Your task to perform on an android device: open a bookmark in the chrome app Image 0: 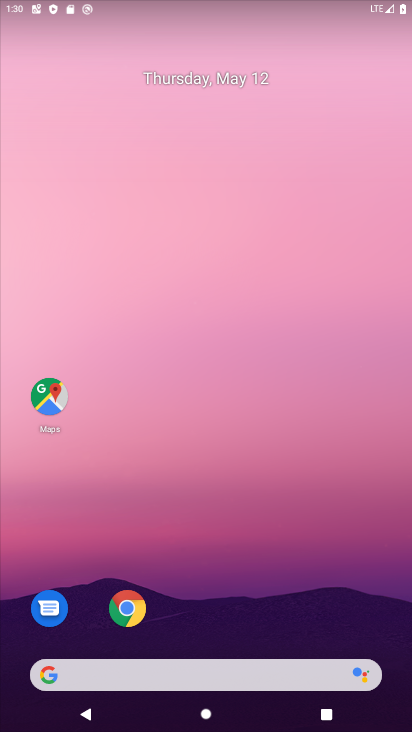
Step 0: click (130, 604)
Your task to perform on an android device: open a bookmark in the chrome app Image 1: 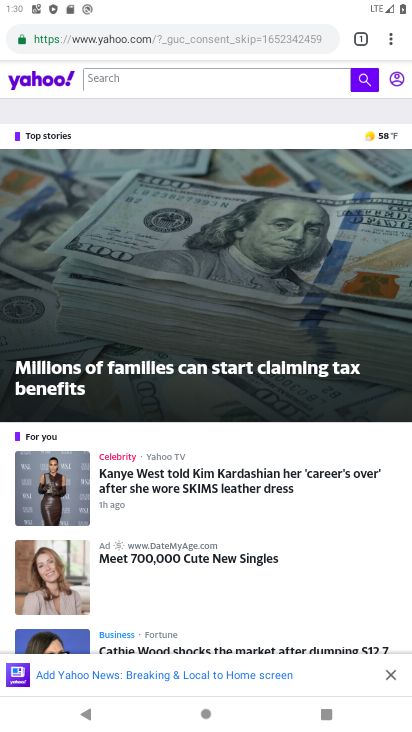
Step 1: click (392, 33)
Your task to perform on an android device: open a bookmark in the chrome app Image 2: 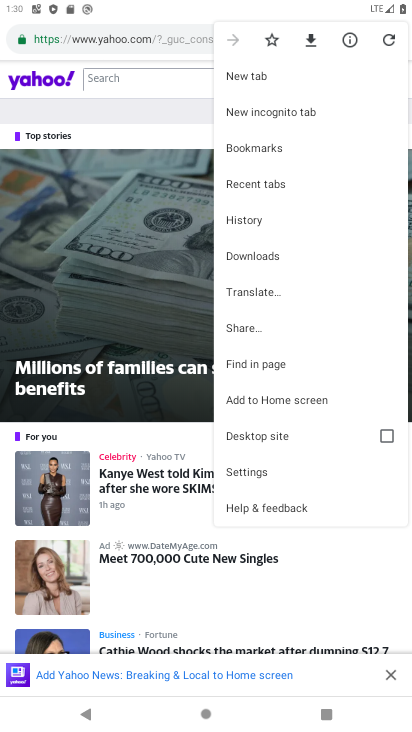
Step 2: click (255, 149)
Your task to perform on an android device: open a bookmark in the chrome app Image 3: 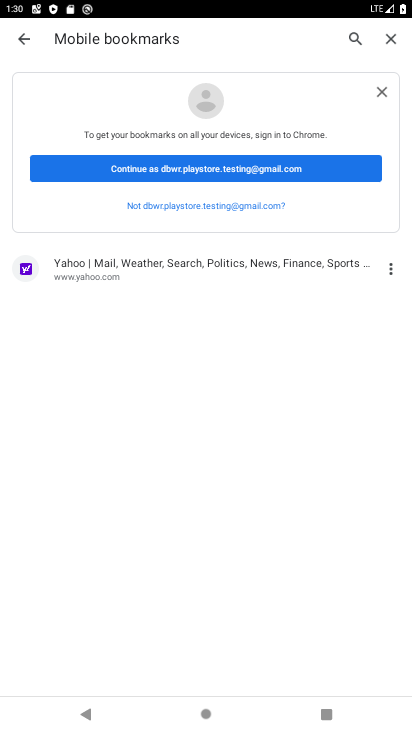
Step 3: click (192, 169)
Your task to perform on an android device: open a bookmark in the chrome app Image 4: 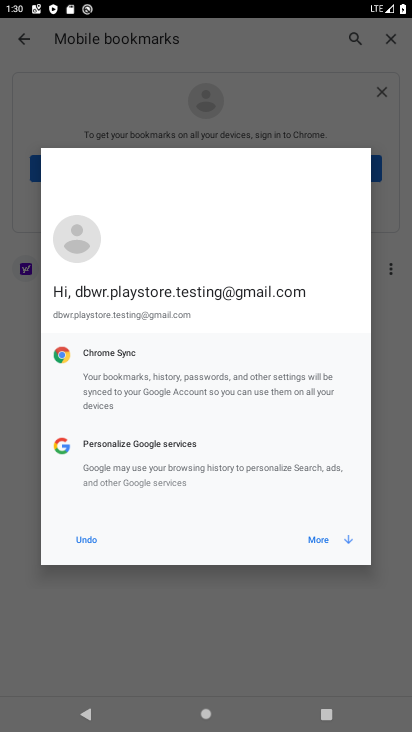
Step 4: click (325, 541)
Your task to perform on an android device: open a bookmark in the chrome app Image 5: 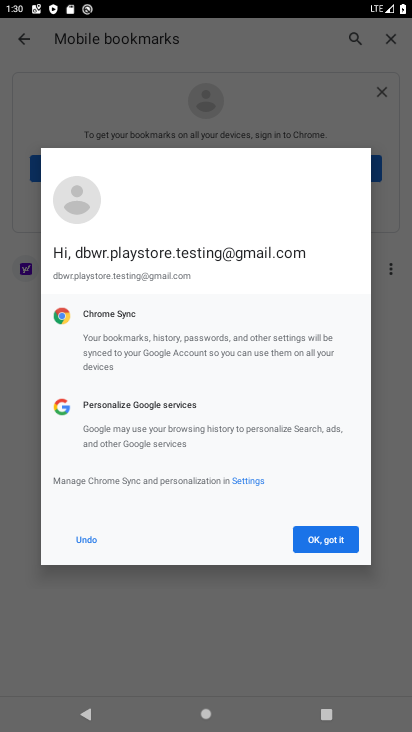
Step 5: click (325, 541)
Your task to perform on an android device: open a bookmark in the chrome app Image 6: 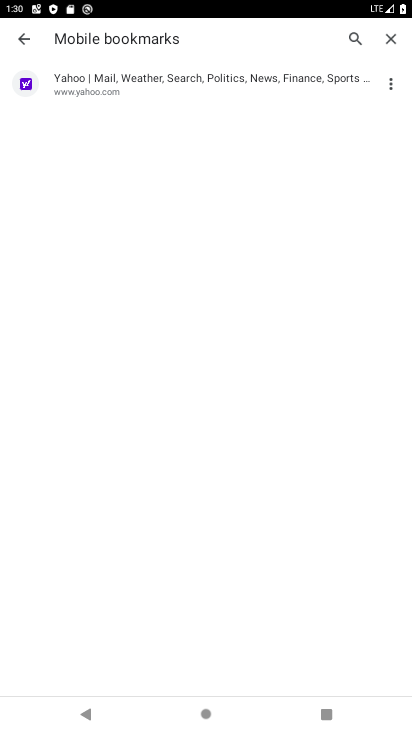
Step 6: click (161, 82)
Your task to perform on an android device: open a bookmark in the chrome app Image 7: 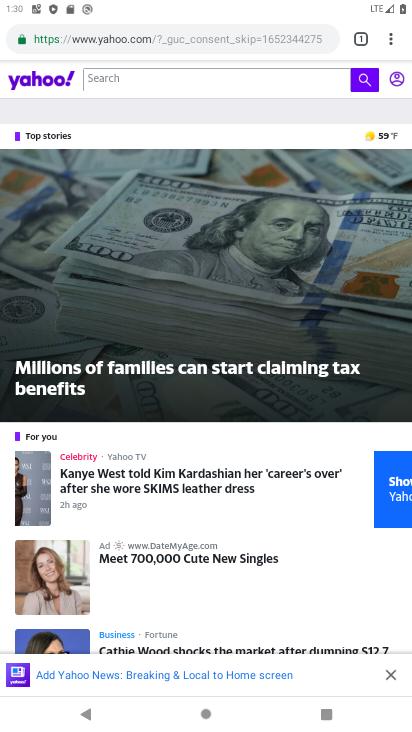
Step 7: task complete